Your task to perform on an android device: change alarm snooze length Image 0: 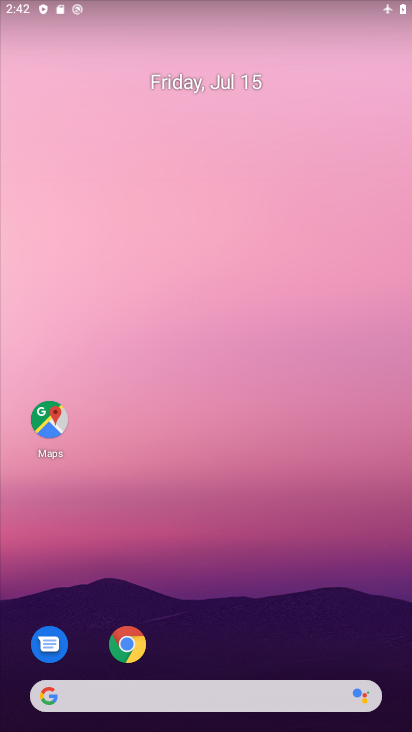
Step 0: drag from (278, 692) to (282, 83)
Your task to perform on an android device: change alarm snooze length Image 1: 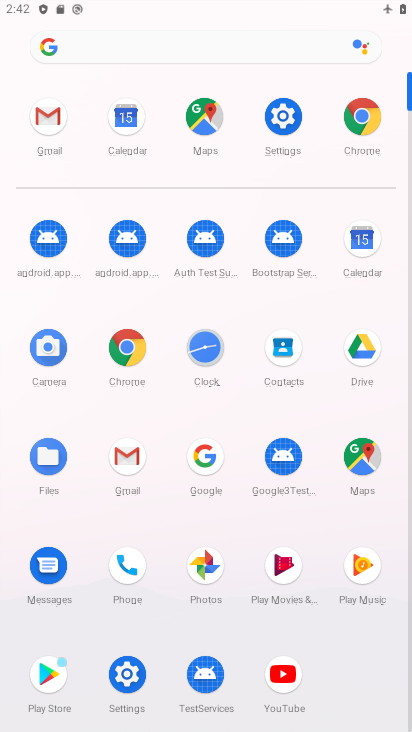
Step 1: click (204, 347)
Your task to perform on an android device: change alarm snooze length Image 2: 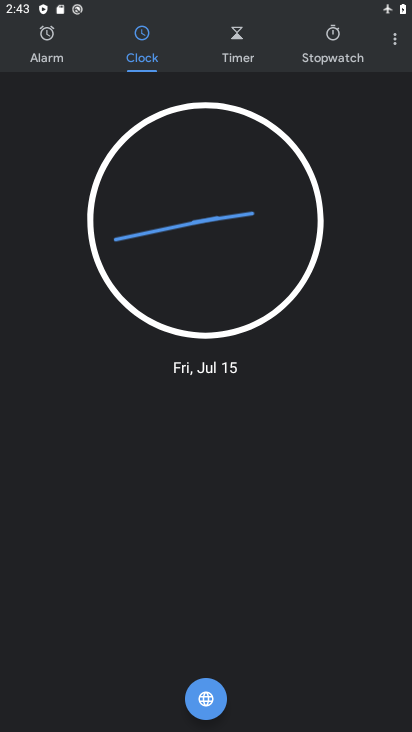
Step 2: click (394, 40)
Your task to perform on an android device: change alarm snooze length Image 3: 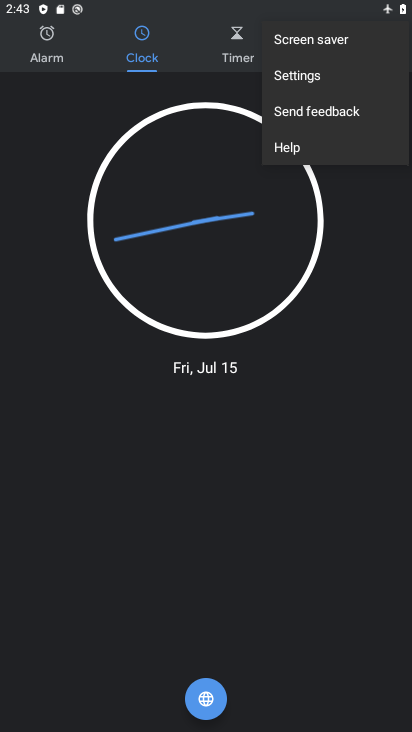
Step 3: click (315, 81)
Your task to perform on an android device: change alarm snooze length Image 4: 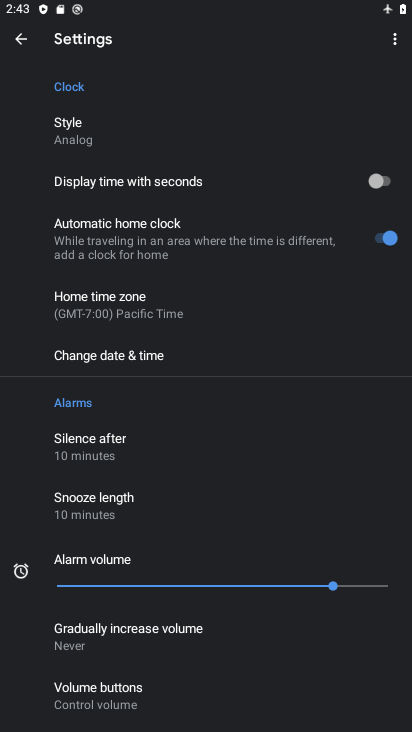
Step 4: click (127, 513)
Your task to perform on an android device: change alarm snooze length Image 5: 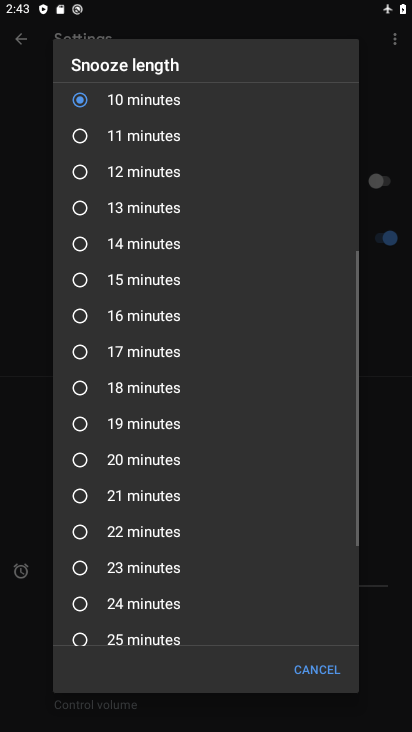
Step 5: click (84, 169)
Your task to perform on an android device: change alarm snooze length Image 6: 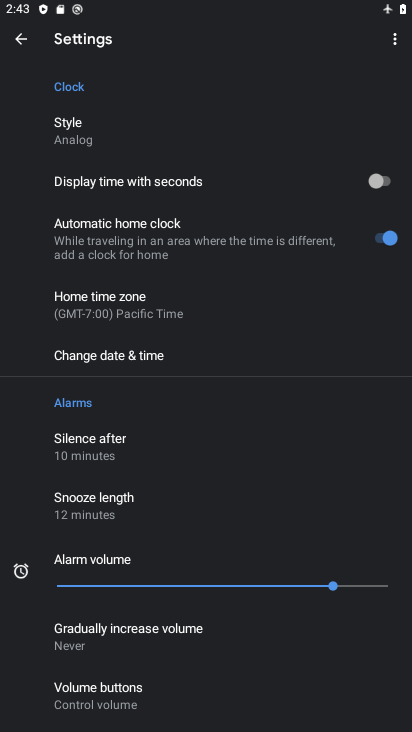
Step 6: task complete